Your task to perform on an android device: change keyboard looks Image 0: 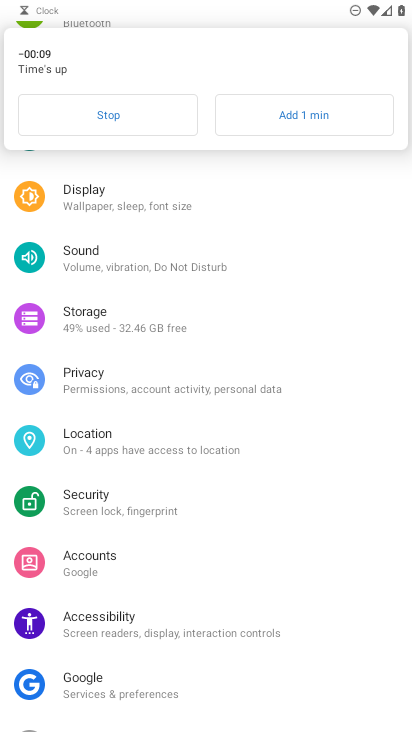
Step 0: press home button
Your task to perform on an android device: change keyboard looks Image 1: 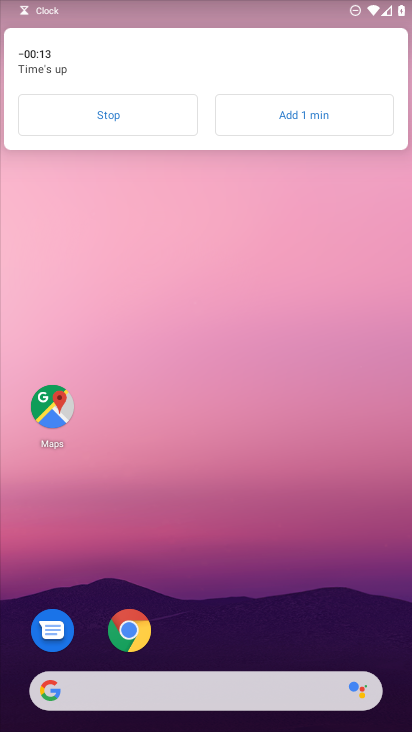
Step 1: click (140, 112)
Your task to perform on an android device: change keyboard looks Image 2: 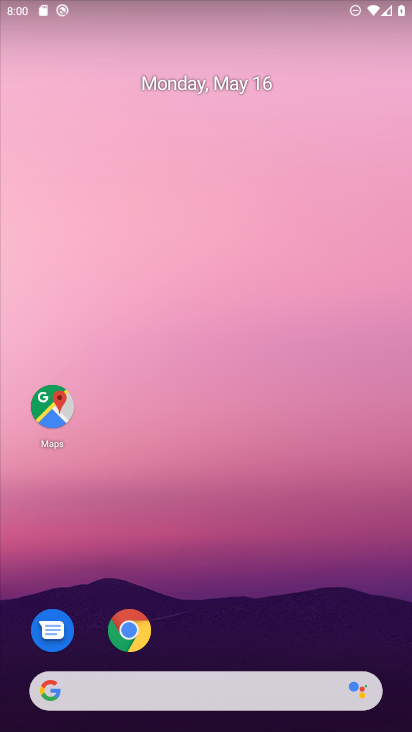
Step 2: click (138, 112)
Your task to perform on an android device: change keyboard looks Image 3: 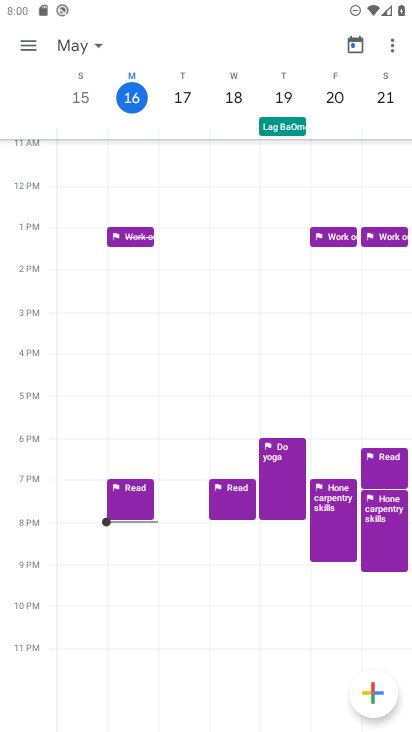
Step 3: drag from (228, 610) to (274, 249)
Your task to perform on an android device: change keyboard looks Image 4: 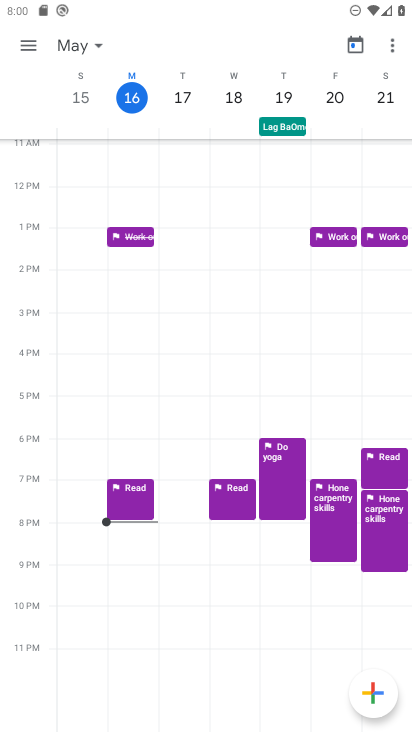
Step 4: press home button
Your task to perform on an android device: change keyboard looks Image 5: 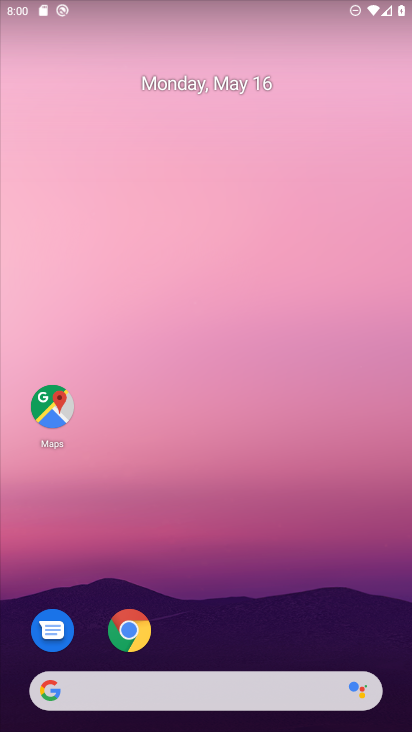
Step 5: drag from (232, 580) to (209, 332)
Your task to perform on an android device: change keyboard looks Image 6: 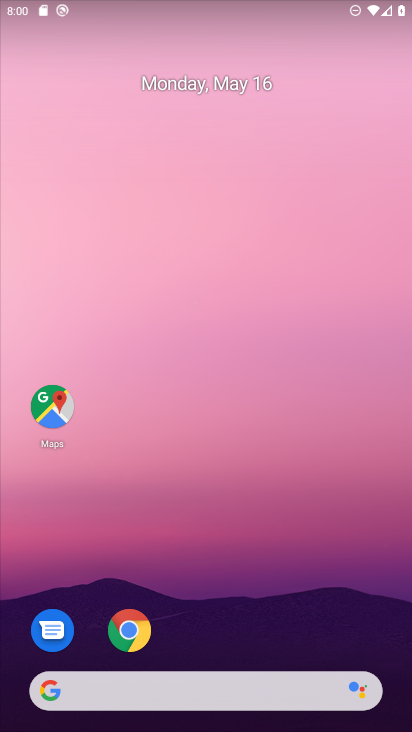
Step 6: drag from (227, 572) to (273, 202)
Your task to perform on an android device: change keyboard looks Image 7: 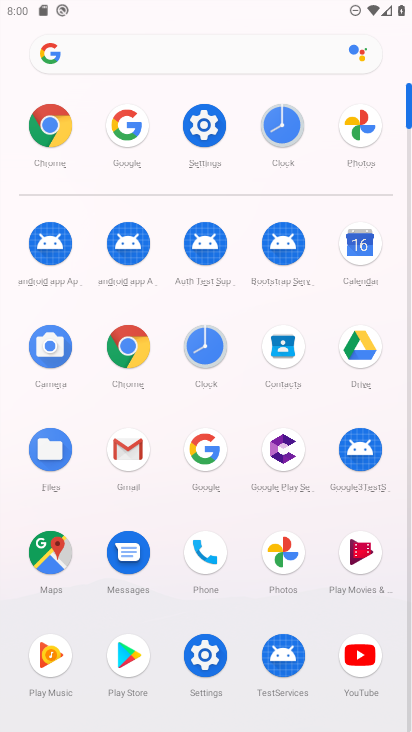
Step 7: click (197, 133)
Your task to perform on an android device: change keyboard looks Image 8: 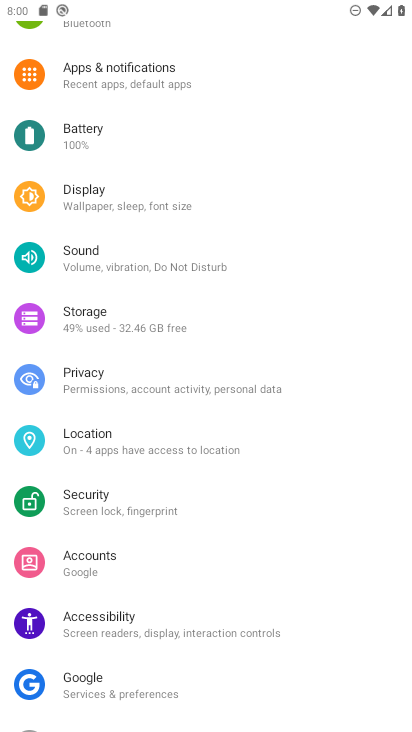
Step 8: drag from (220, 131) to (213, 532)
Your task to perform on an android device: change keyboard looks Image 9: 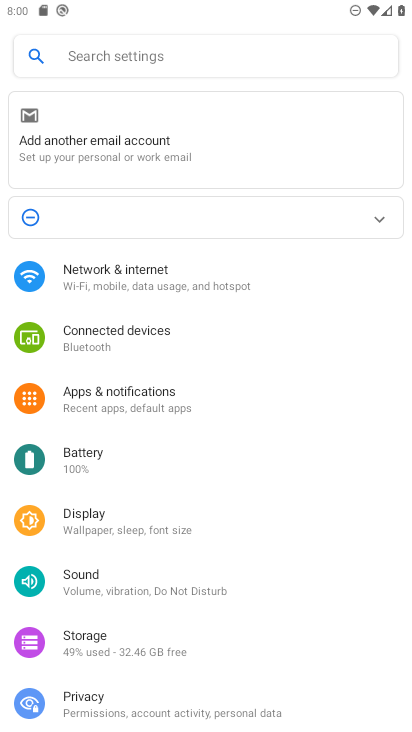
Step 9: drag from (316, 607) to (273, 305)
Your task to perform on an android device: change keyboard looks Image 10: 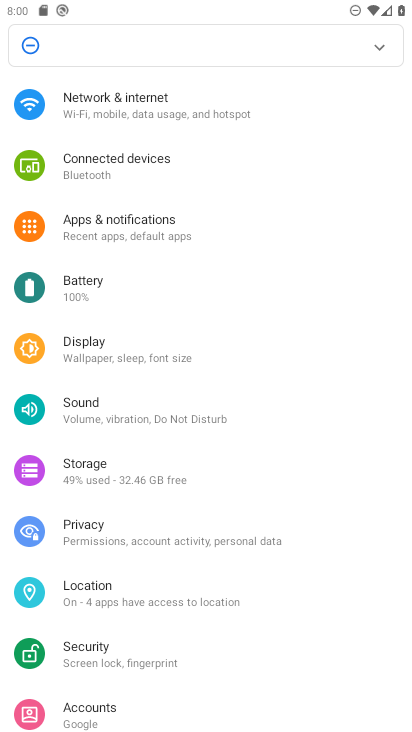
Step 10: drag from (263, 587) to (269, 318)
Your task to perform on an android device: change keyboard looks Image 11: 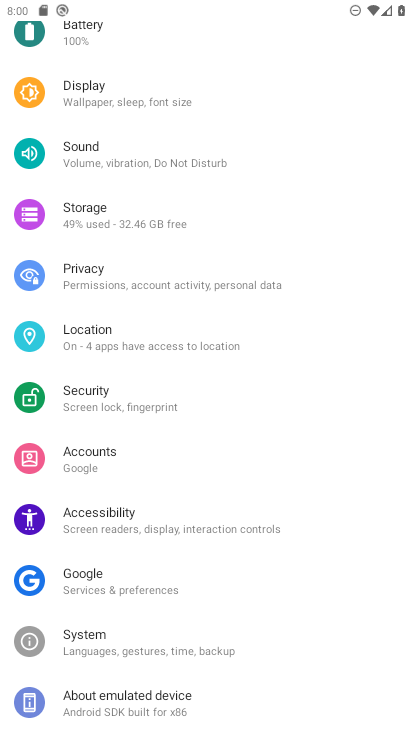
Step 11: drag from (261, 593) to (204, 310)
Your task to perform on an android device: change keyboard looks Image 12: 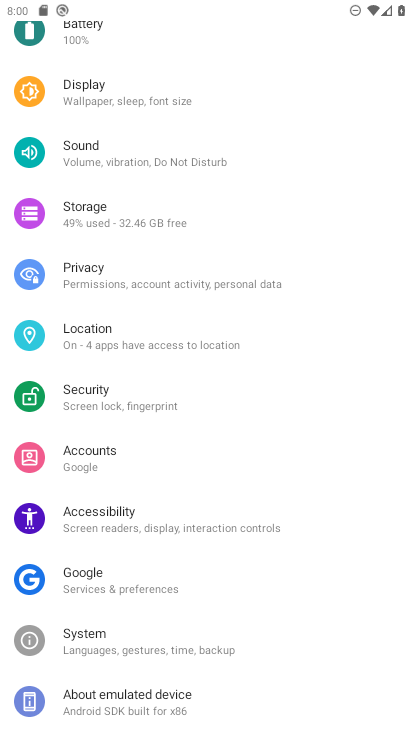
Step 12: drag from (281, 321) to (275, 592)
Your task to perform on an android device: change keyboard looks Image 13: 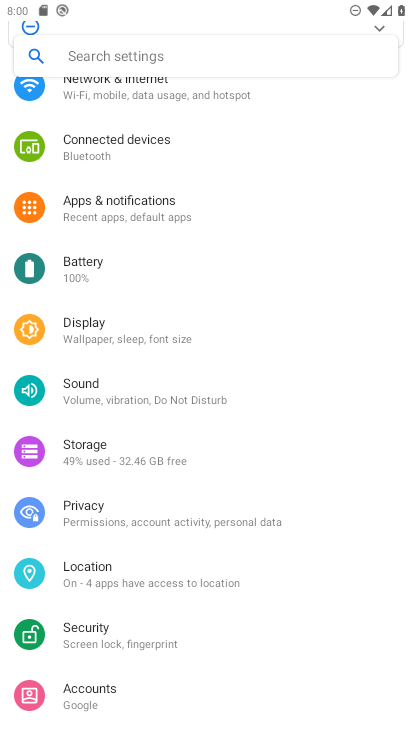
Step 13: click (86, 349)
Your task to perform on an android device: change keyboard looks Image 14: 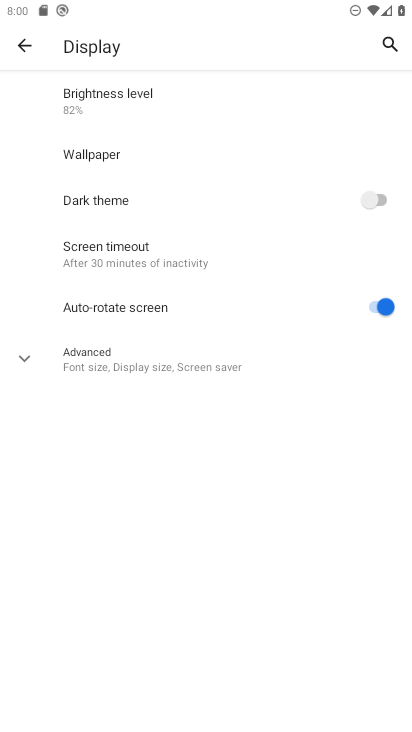
Step 14: press back button
Your task to perform on an android device: change keyboard looks Image 15: 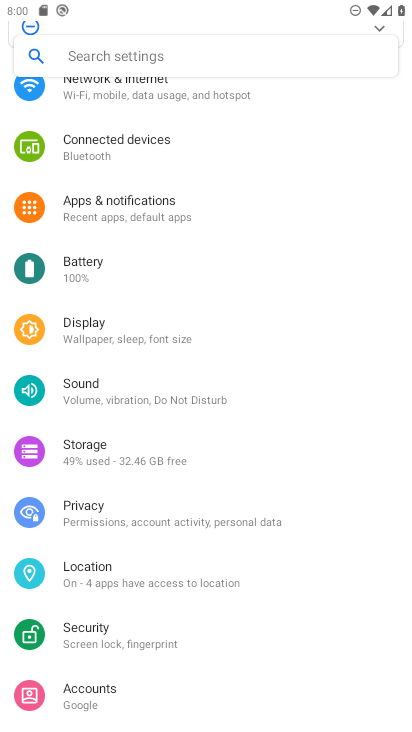
Step 15: drag from (211, 180) to (183, 574)
Your task to perform on an android device: change keyboard looks Image 16: 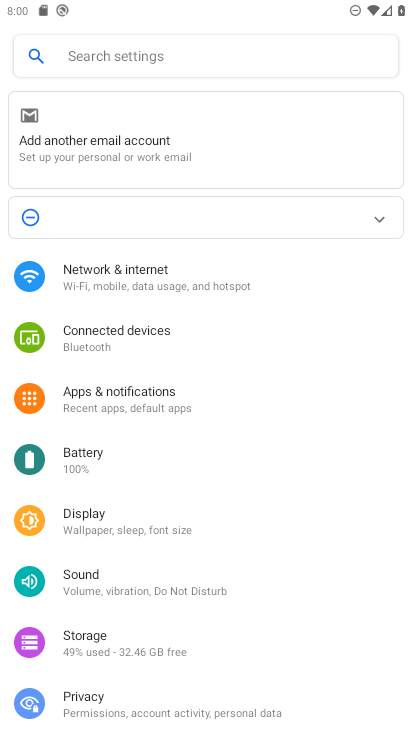
Step 16: click (142, 48)
Your task to perform on an android device: change keyboard looks Image 17: 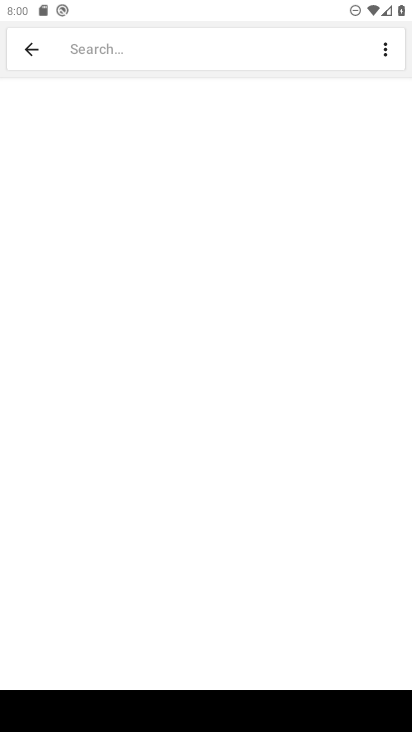
Step 17: task complete